Your task to perform on an android device: Open Reddit.com Image 0: 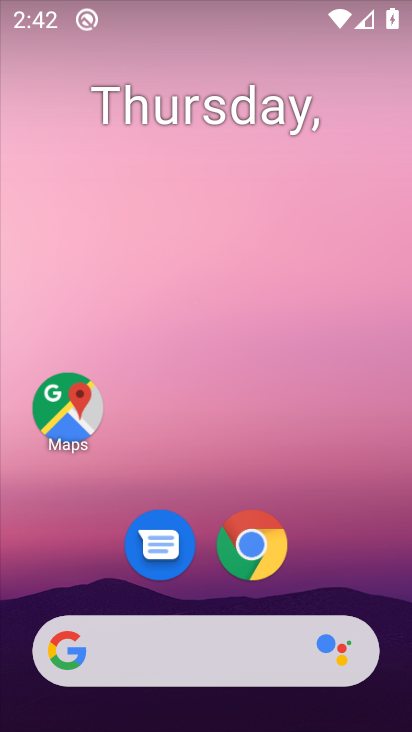
Step 0: drag from (235, 614) to (227, 126)
Your task to perform on an android device: Open Reddit.com Image 1: 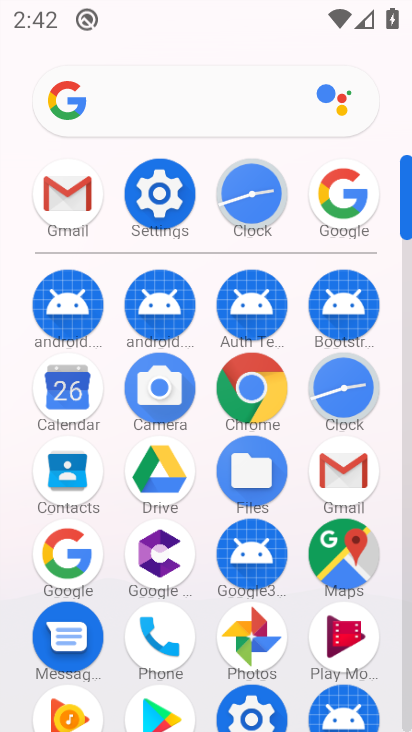
Step 1: click (343, 202)
Your task to perform on an android device: Open Reddit.com Image 2: 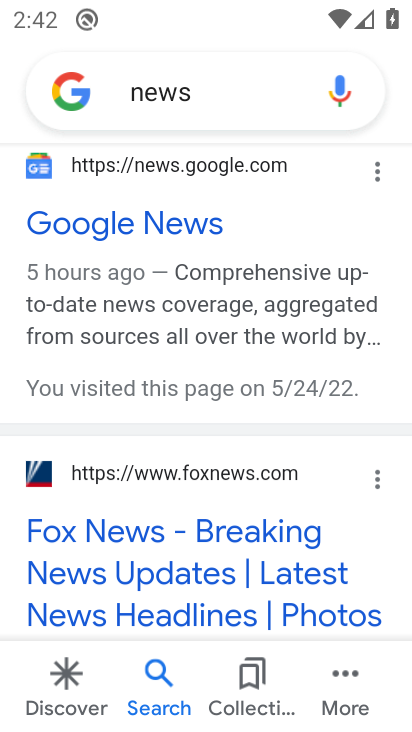
Step 2: click (188, 95)
Your task to perform on an android device: Open Reddit.com Image 3: 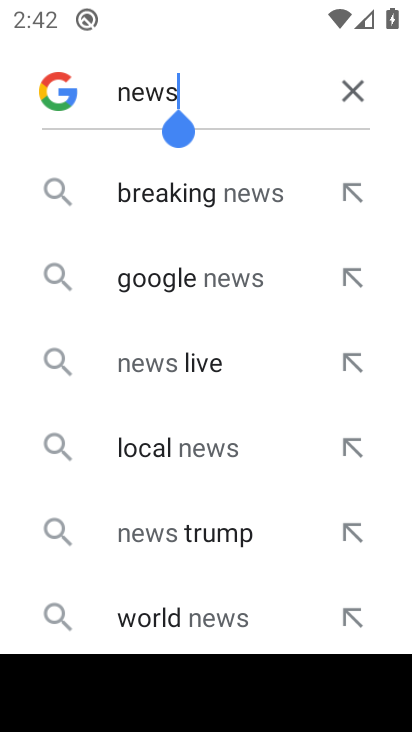
Step 3: click (350, 93)
Your task to perform on an android device: Open Reddit.com Image 4: 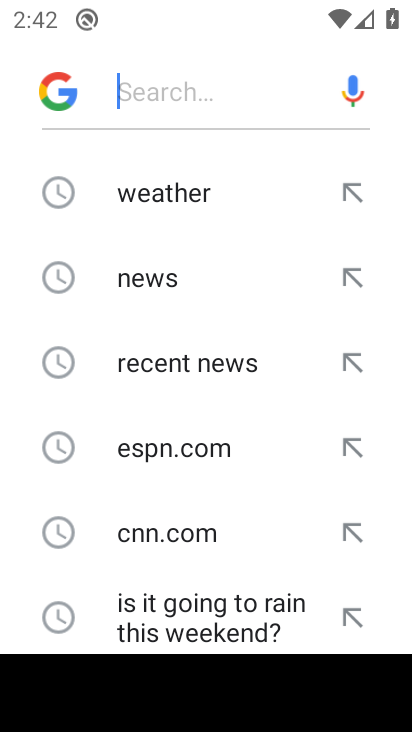
Step 4: drag from (203, 527) to (235, 105)
Your task to perform on an android device: Open Reddit.com Image 5: 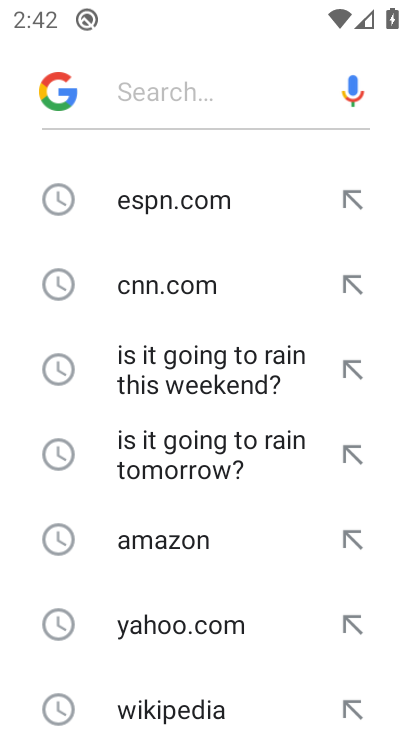
Step 5: drag from (170, 641) to (184, 229)
Your task to perform on an android device: Open Reddit.com Image 6: 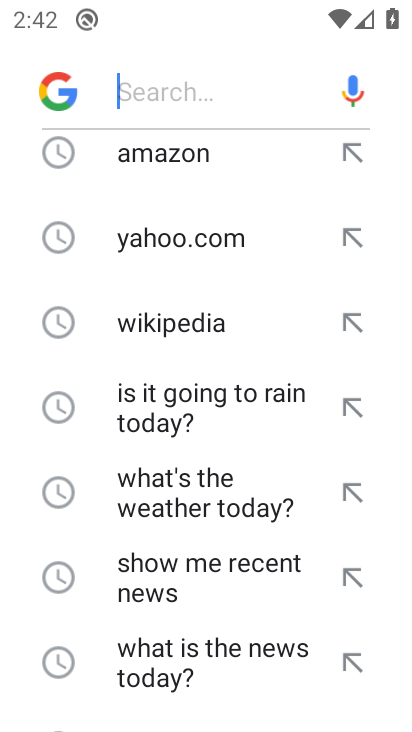
Step 6: drag from (205, 696) to (211, 209)
Your task to perform on an android device: Open Reddit.com Image 7: 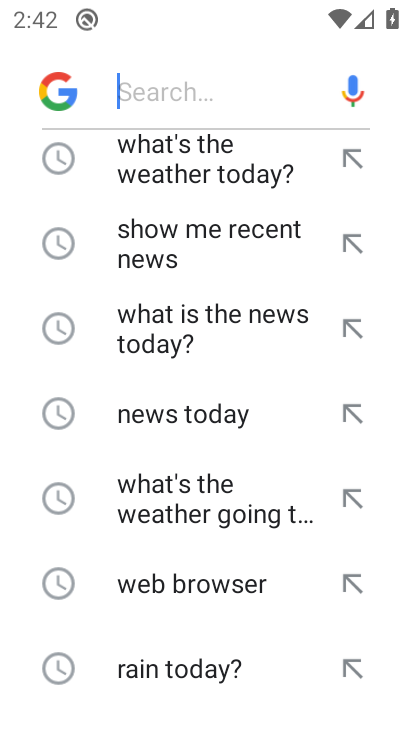
Step 7: drag from (182, 694) to (223, 249)
Your task to perform on an android device: Open Reddit.com Image 8: 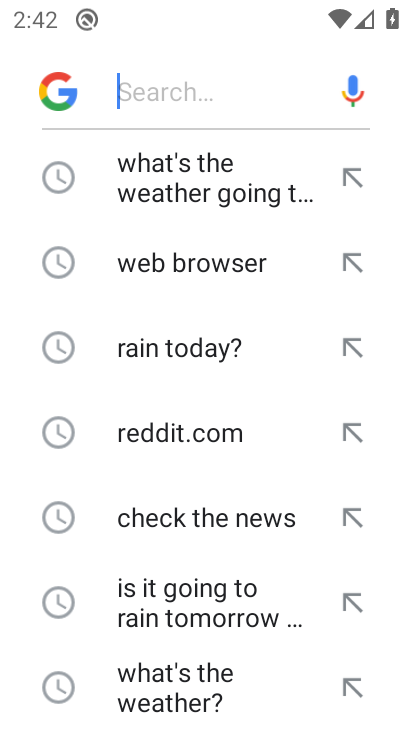
Step 8: click (195, 438)
Your task to perform on an android device: Open Reddit.com Image 9: 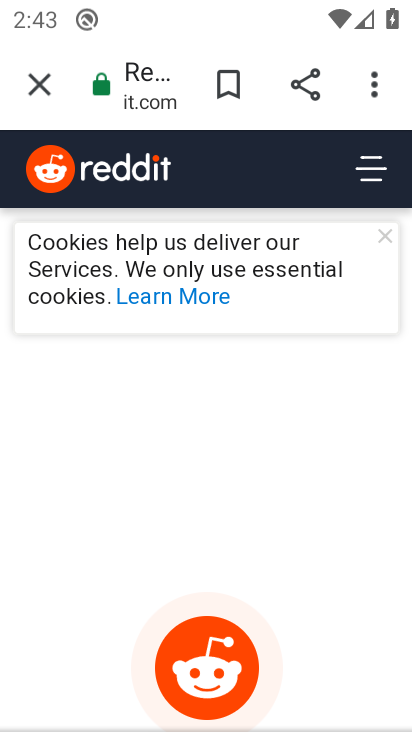
Step 9: task complete